Your task to perform on an android device: open app "NewsBreak: Local News & Alerts" (install if not already installed) Image 0: 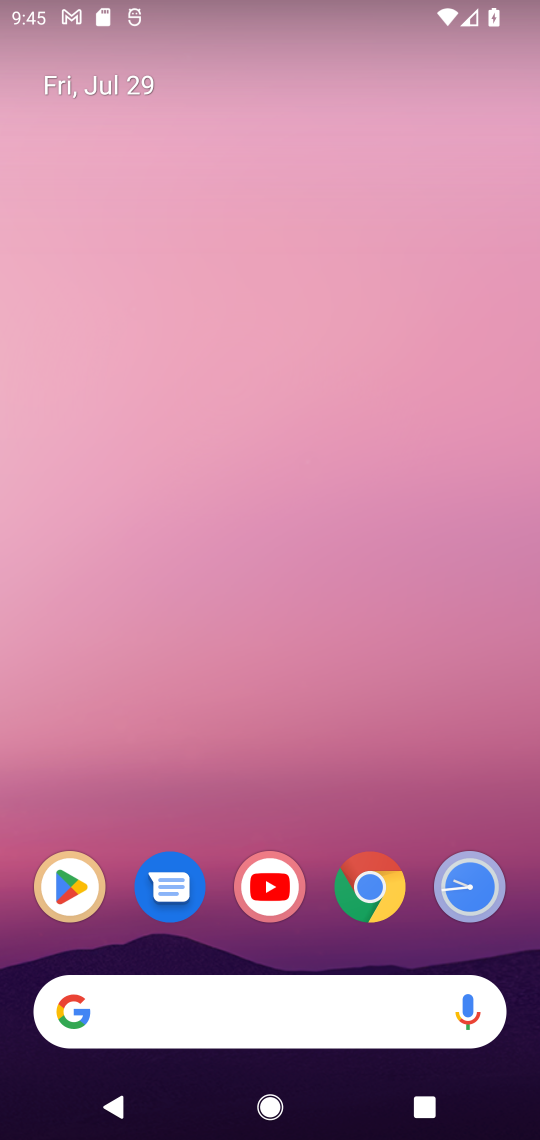
Step 0: click (81, 899)
Your task to perform on an android device: open app "NewsBreak: Local News & Alerts" (install if not already installed) Image 1: 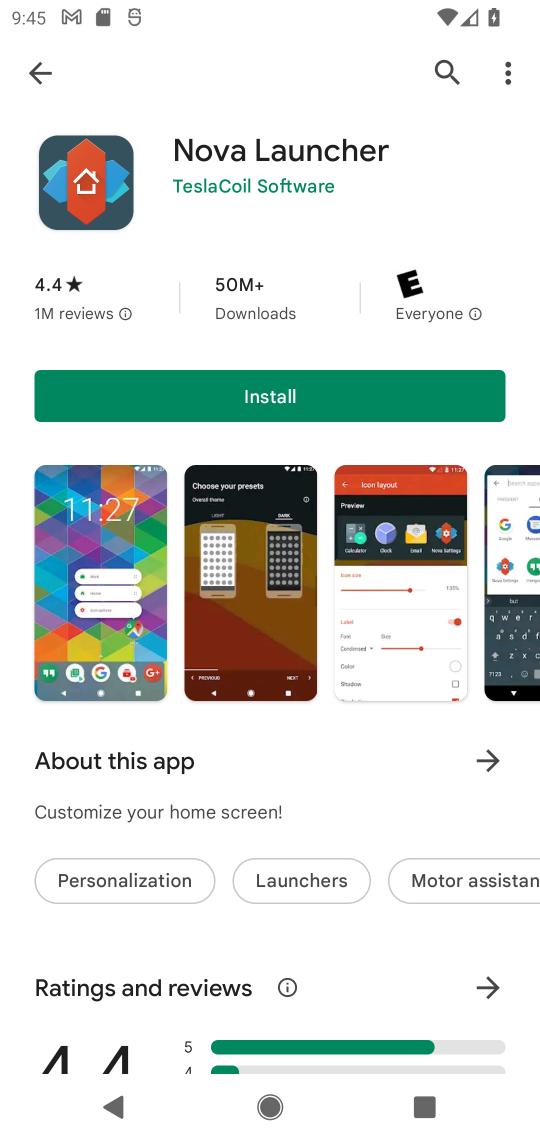
Step 1: click (450, 81)
Your task to perform on an android device: open app "NewsBreak: Local News & Alerts" (install if not already installed) Image 2: 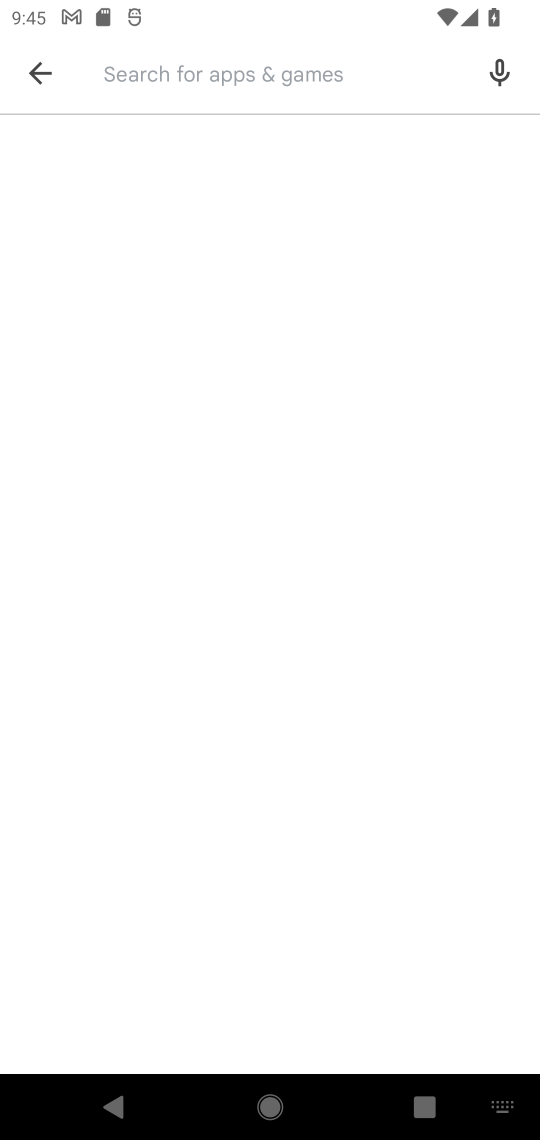
Step 2: type "NewsBreak: local news & alerts"
Your task to perform on an android device: open app "NewsBreak: Local News & Alerts" (install if not already installed) Image 3: 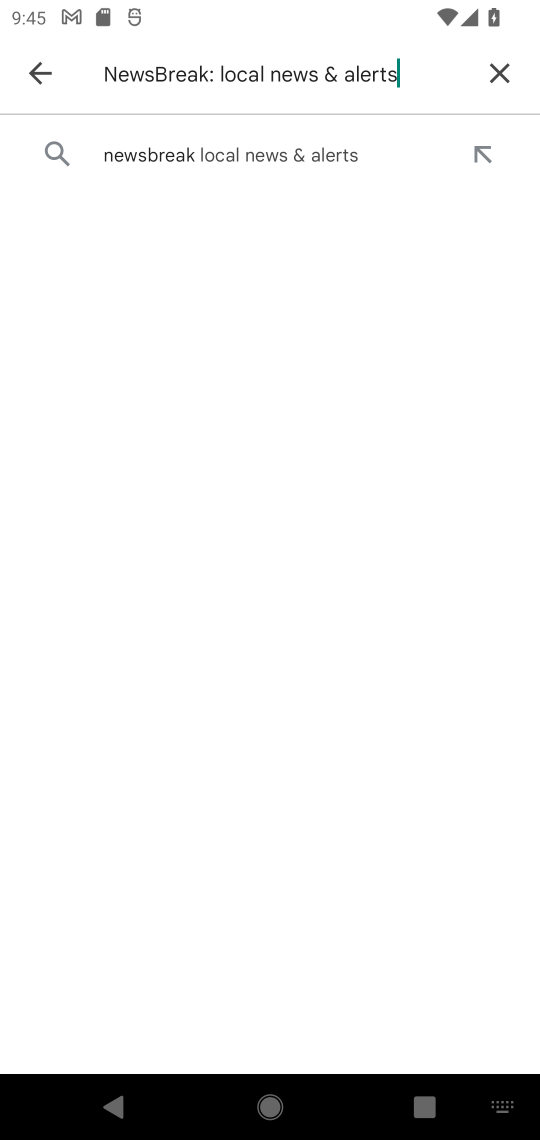
Step 3: click (424, 146)
Your task to perform on an android device: open app "NewsBreak: Local News & Alerts" (install if not already installed) Image 4: 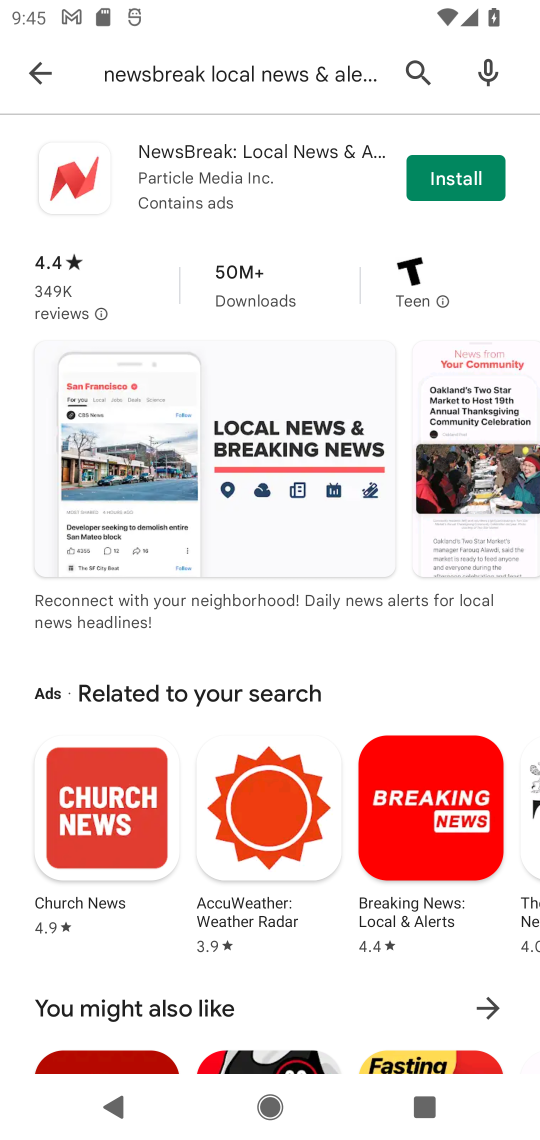
Step 4: click (267, 142)
Your task to perform on an android device: open app "NewsBreak: Local News & Alerts" (install if not already installed) Image 5: 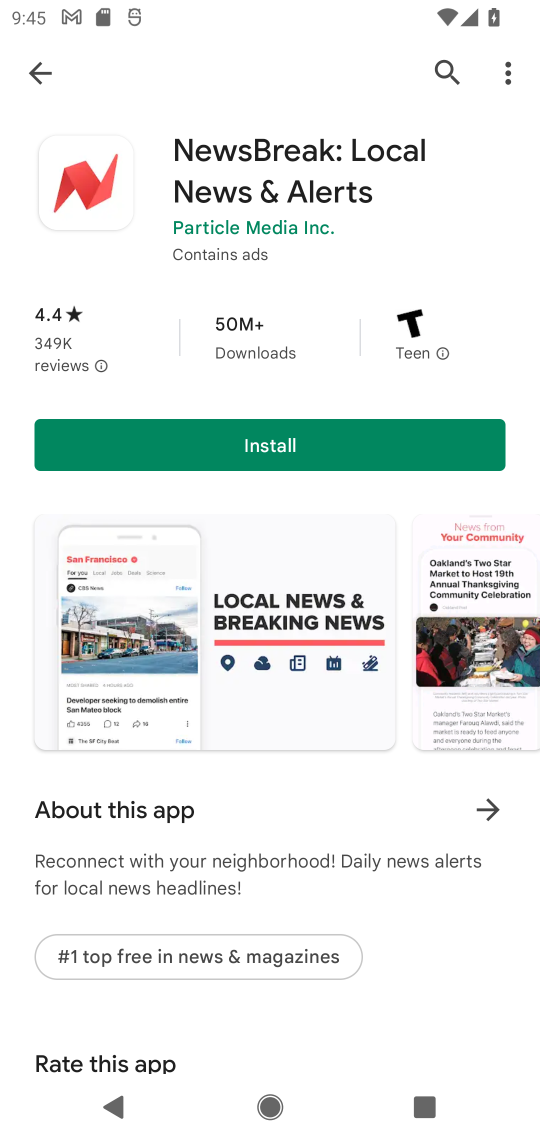
Step 5: click (182, 425)
Your task to perform on an android device: open app "NewsBreak: Local News & Alerts" (install if not already installed) Image 6: 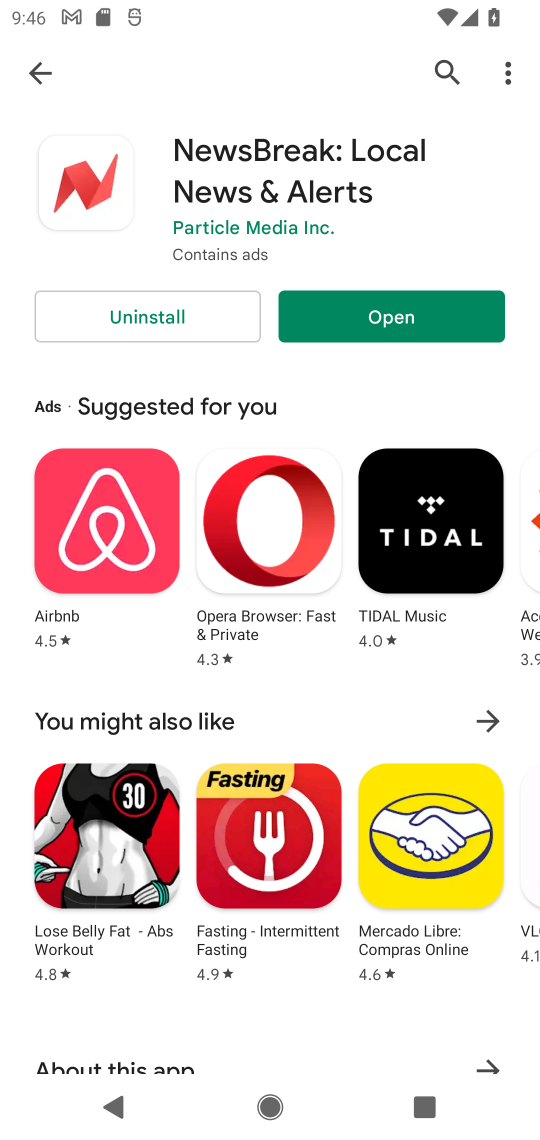
Step 6: click (398, 331)
Your task to perform on an android device: open app "NewsBreak: Local News & Alerts" (install if not already installed) Image 7: 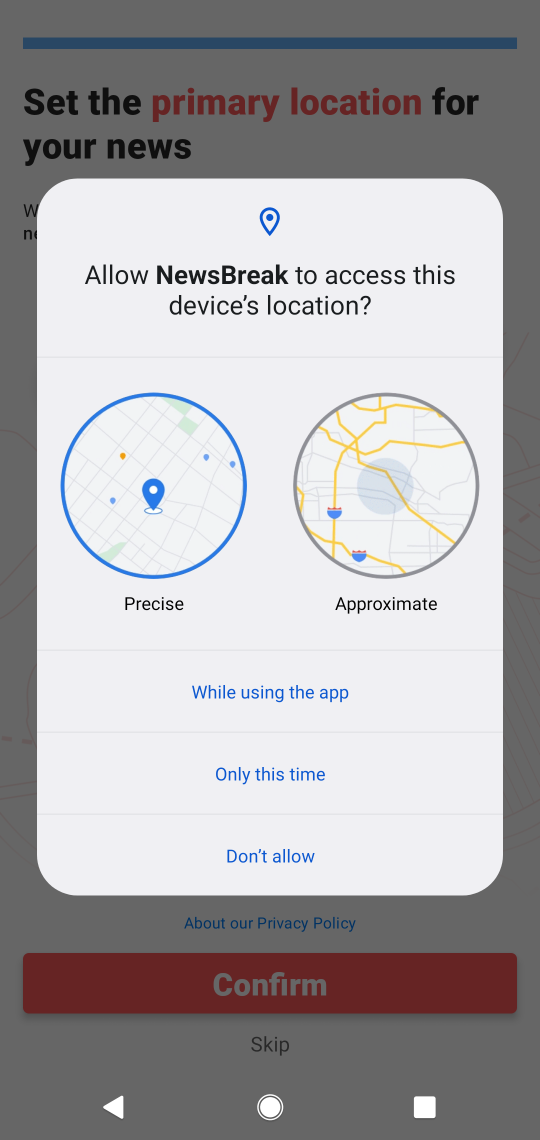
Step 7: task complete